Your task to perform on an android device: search for starred emails in the gmail app Image 0: 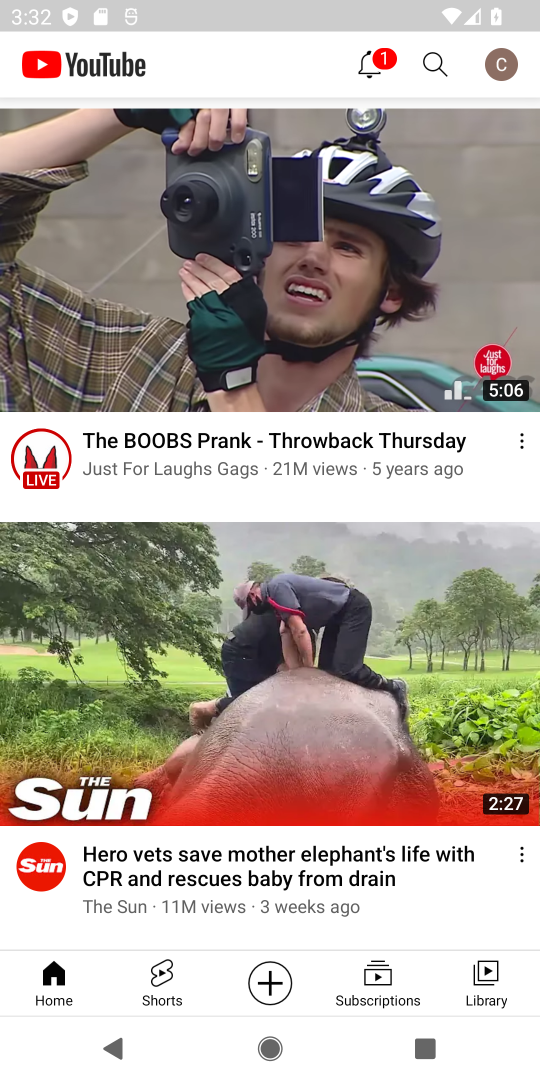
Step 0: press home button
Your task to perform on an android device: search for starred emails in the gmail app Image 1: 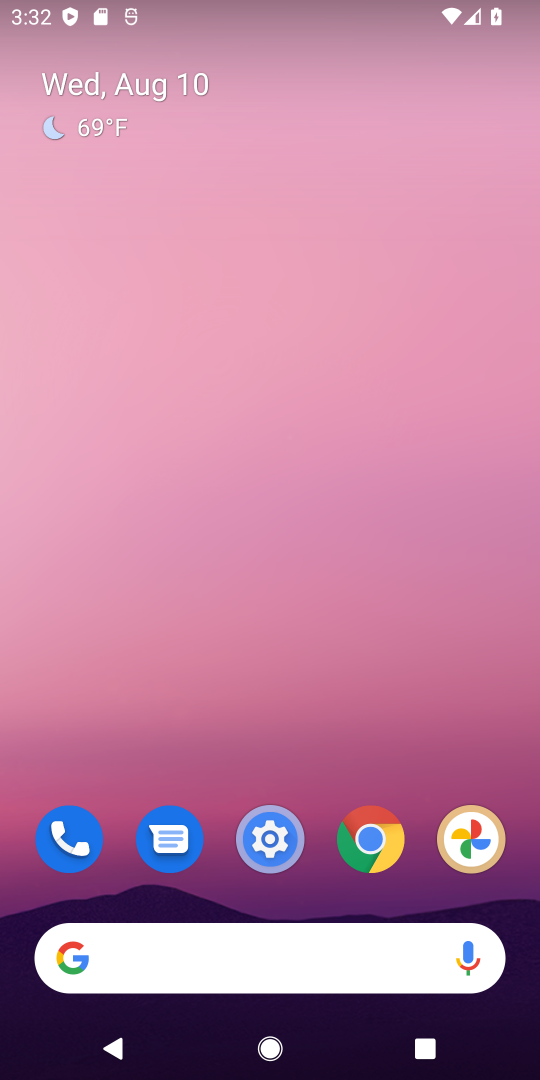
Step 1: drag from (268, 754) to (350, 1)
Your task to perform on an android device: search for starred emails in the gmail app Image 2: 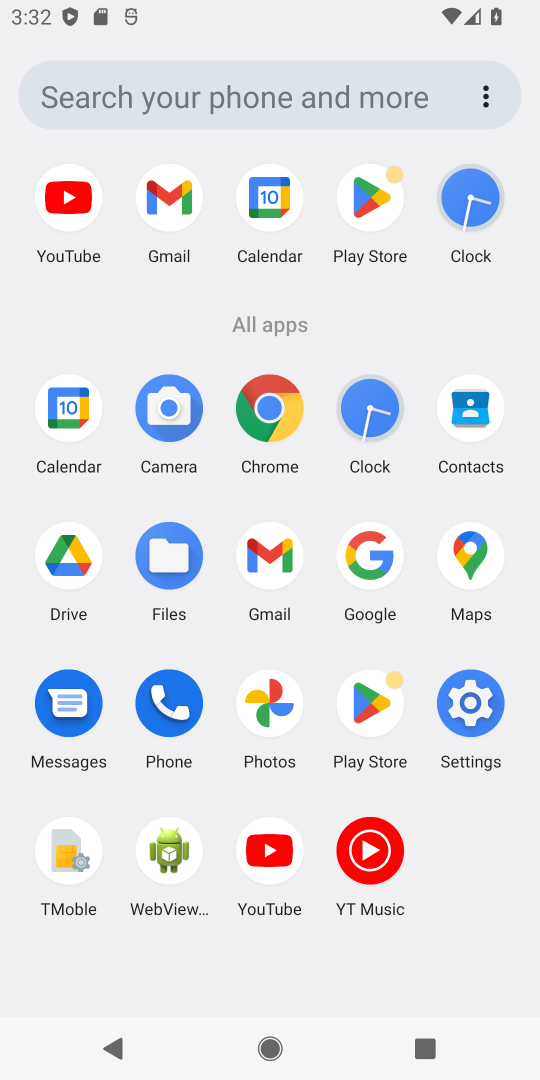
Step 2: click (173, 194)
Your task to perform on an android device: search for starred emails in the gmail app Image 3: 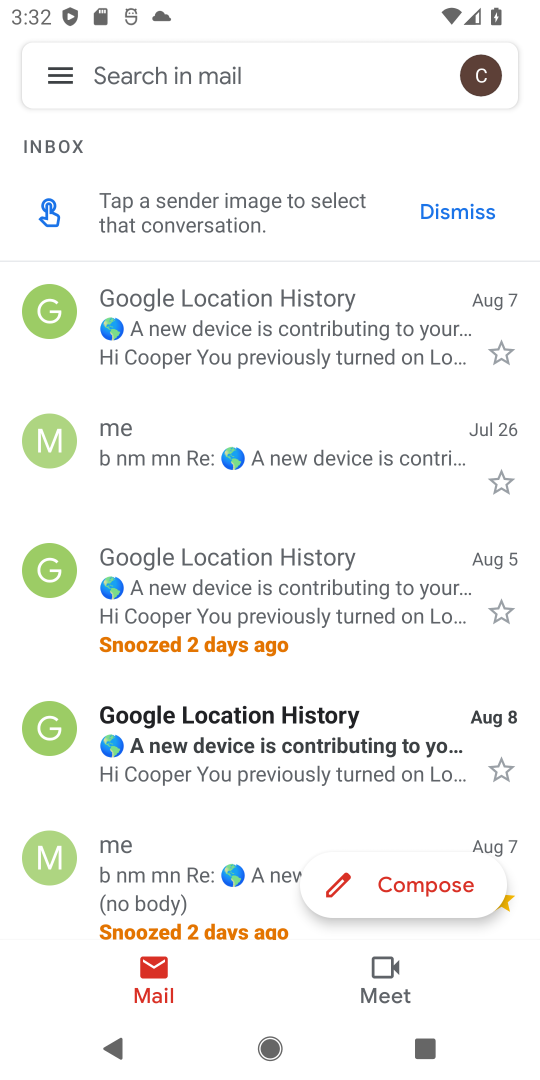
Step 3: click (63, 79)
Your task to perform on an android device: search for starred emails in the gmail app Image 4: 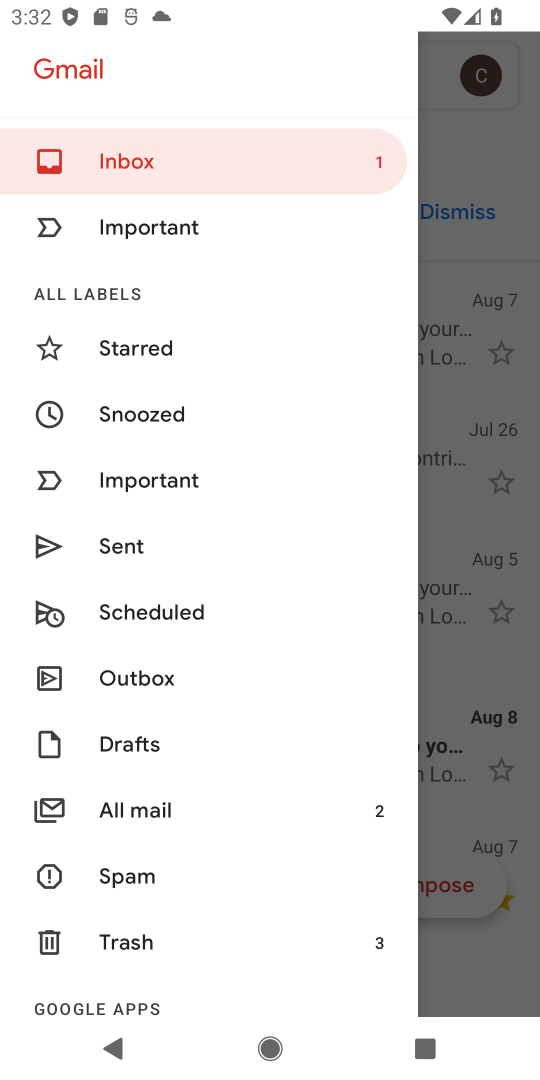
Step 4: click (137, 334)
Your task to perform on an android device: search for starred emails in the gmail app Image 5: 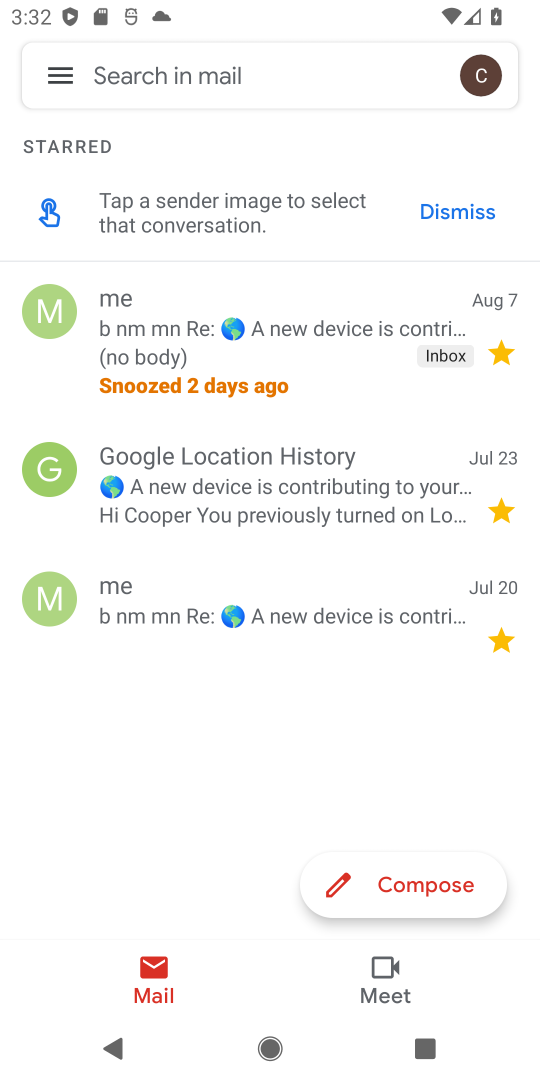
Step 5: task complete